Your task to perform on an android device: all mails in gmail Image 0: 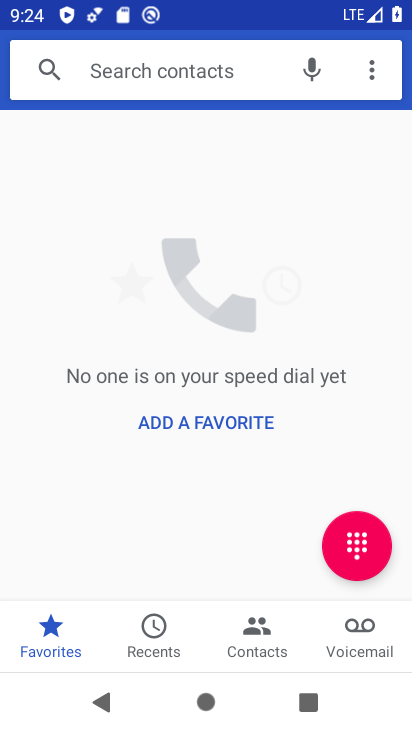
Step 0: press home button
Your task to perform on an android device: all mails in gmail Image 1: 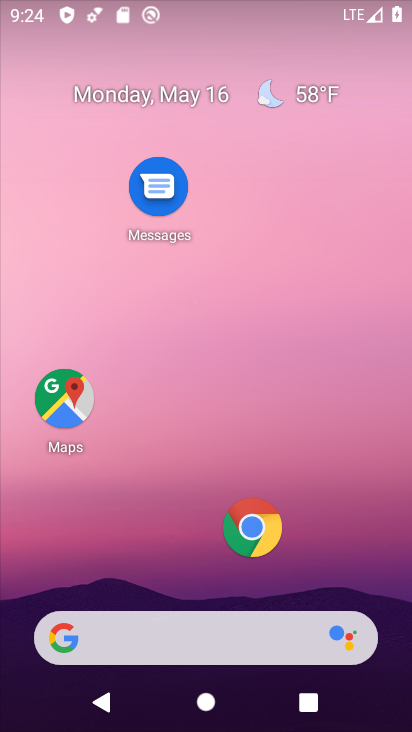
Step 1: drag from (177, 555) to (207, 29)
Your task to perform on an android device: all mails in gmail Image 2: 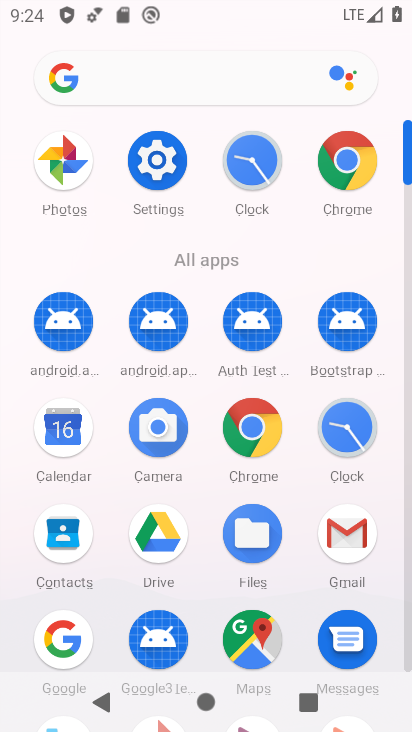
Step 2: click (350, 521)
Your task to perform on an android device: all mails in gmail Image 3: 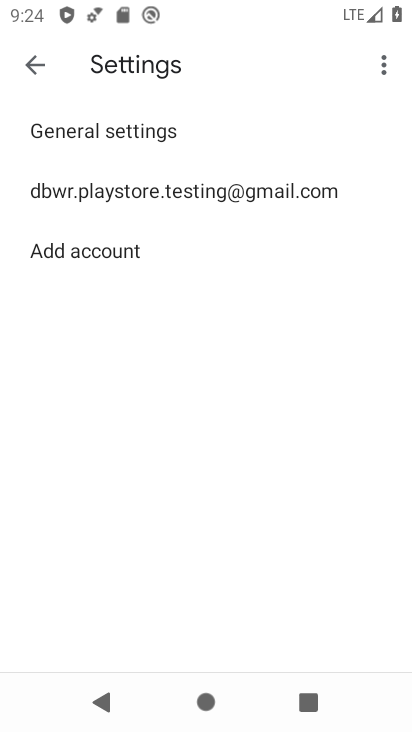
Step 3: press back button
Your task to perform on an android device: all mails in gmail Image 4: 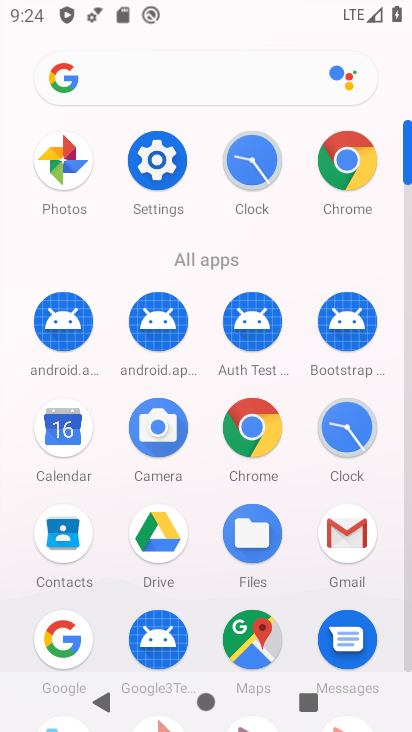
Step 4: click (349, 535)
Your task to perform on an android device: all mails in gmail Image 5: 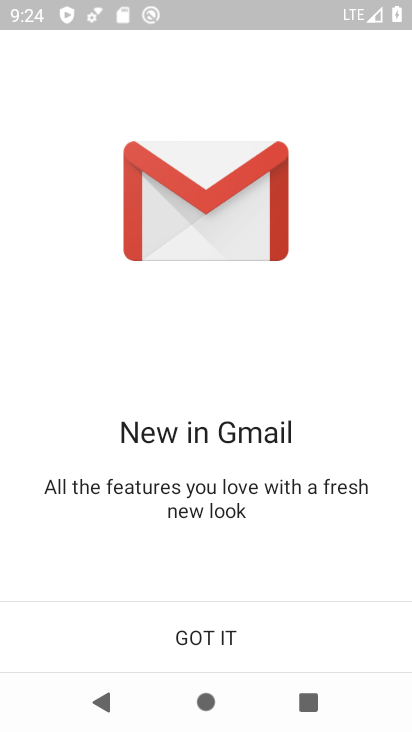
Step 5: click (193, 637)
Your task to perform on an android device: all mails in gmail Image 6: 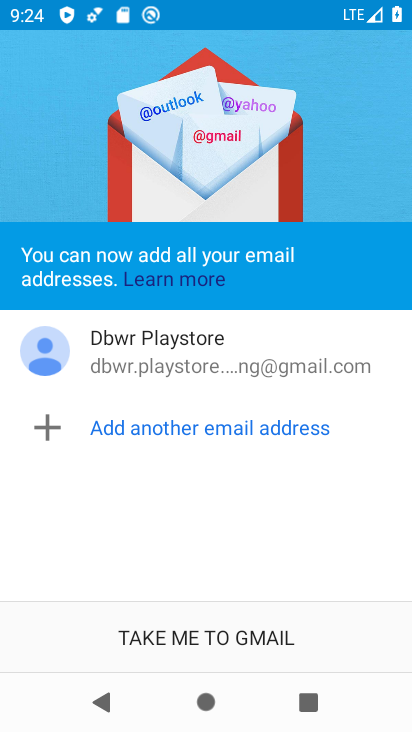
Step 6: click (193, 637)
Your task to perform on an android device: all mails in gmail Image 7: 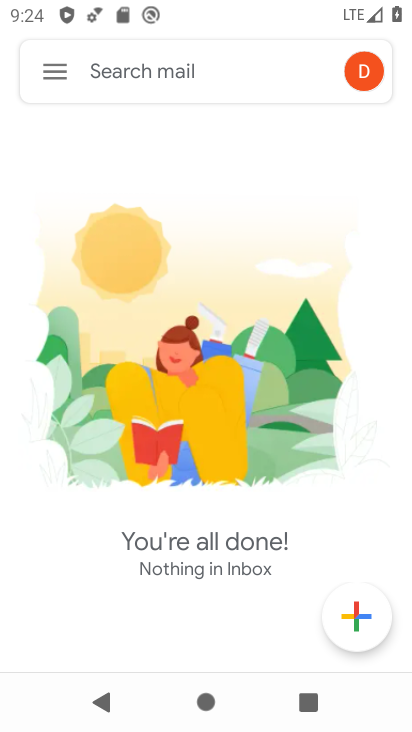
Step 7: click (51, 68)
Your task to perform on an android device: all mails in gmail Image 8: 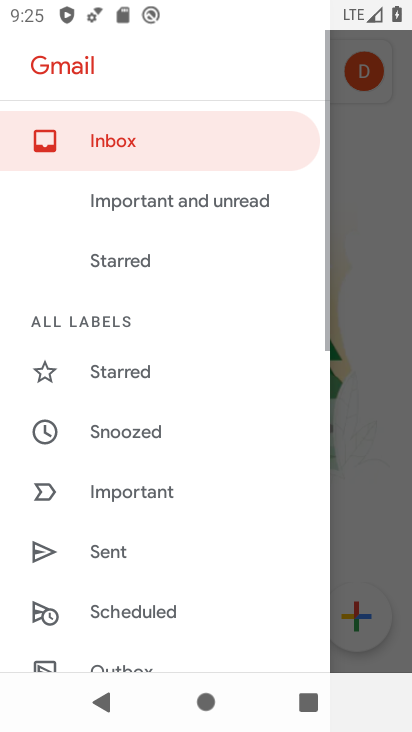
Step 8: drag from (134, 582) to (109, 81)
Your task to perform on an android device: all mails in gmail Image 9: 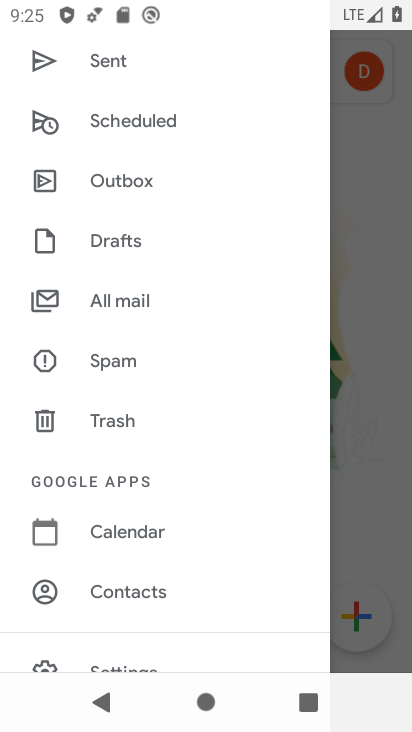
Step 9: click (121, 296)
Your task to perform on an android device: all mails in gmail Image 10: 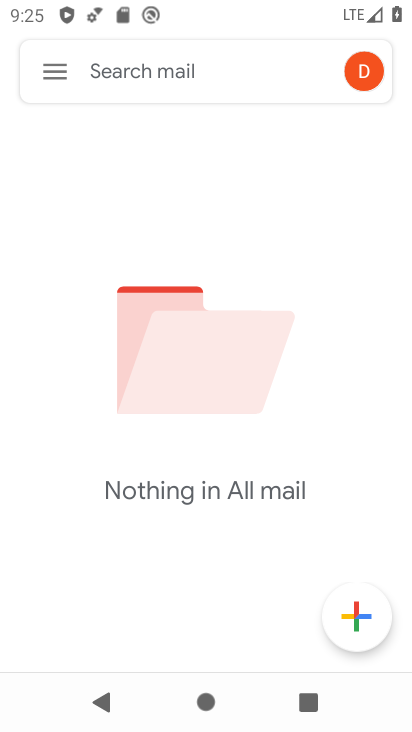
Step 10: task complete